Your task to perform on an android device: check battery use Image 0: 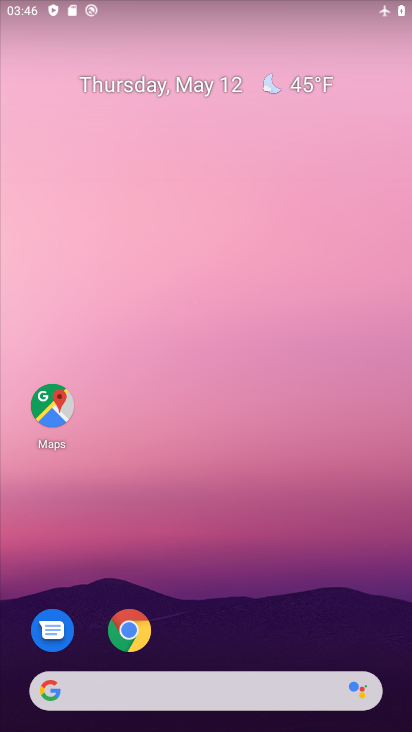
Step 0: drag from (297, 661) to (321, 206)
Your task to perform on an android device: check battery use Image 1: 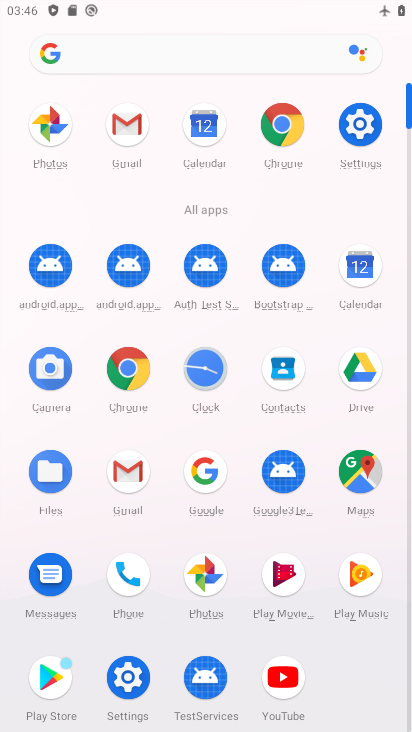
Step 1: click (123, 668)
Your task to perform on an android device: check battery use Image 2: 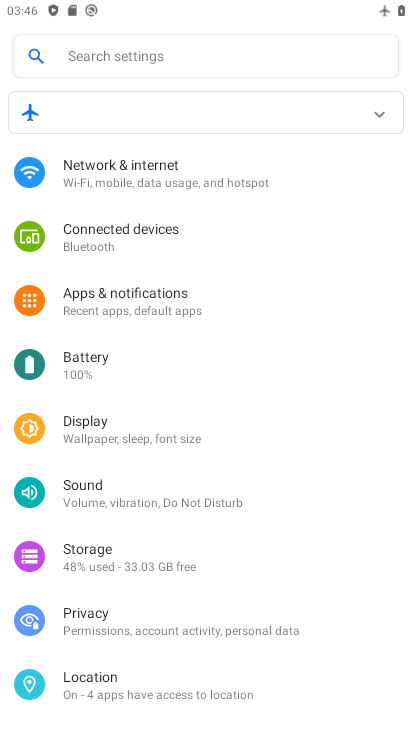
Step 2: click (112, 364)
Your task to perform on an android device: check battery use Image 3: 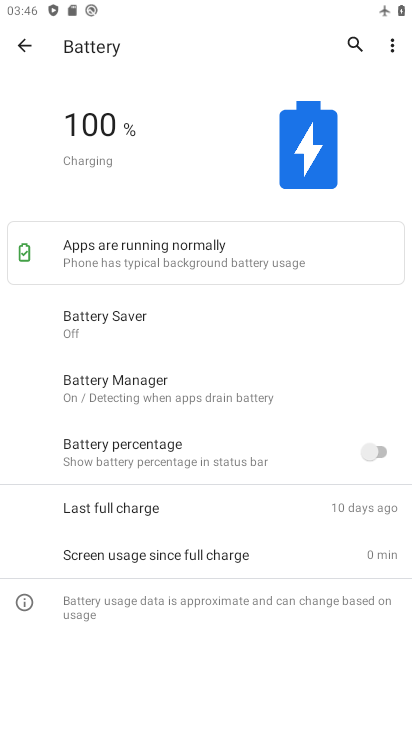
Step 3: click (396, 46)
Your task to perform on an android device: check battery use Image 4: 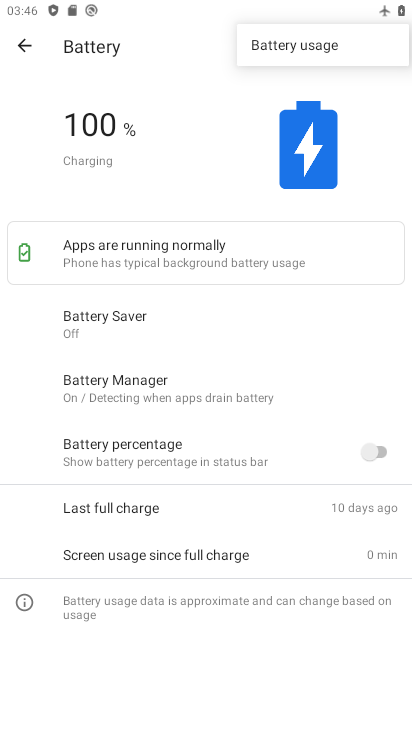
Step 4: click (311, 51)
Your task to perform on an android device: check battery use Image 5: 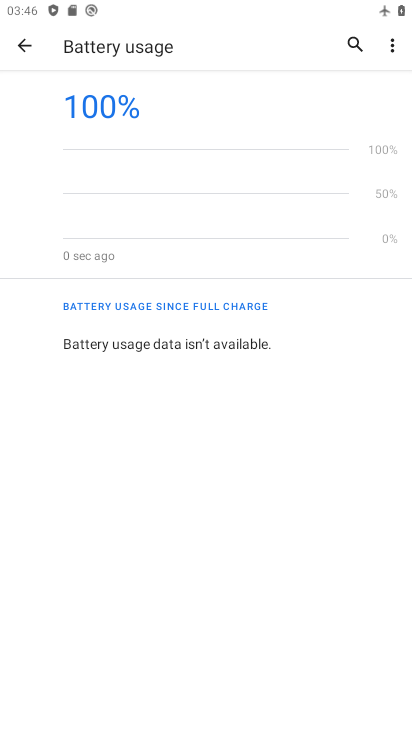
Step 5: task complete